Your task to perform on an android device: How much does a 3 bedroom apartment rent for in Washington DC? Image 0: 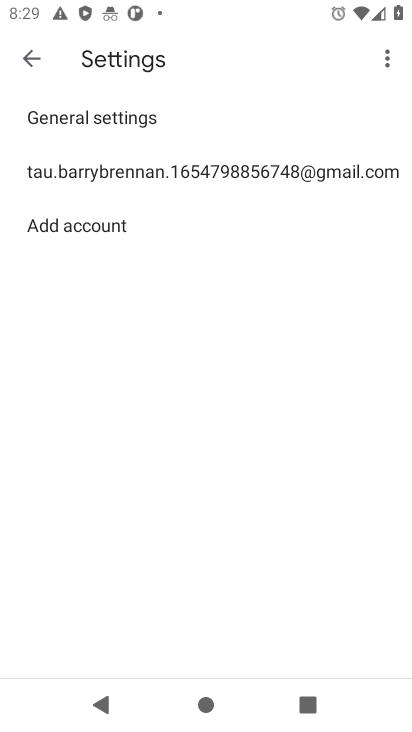
Step 0: press home button
Your task to perform on an android device: How much does a 3 bedroom apartment rent for in Washington DC? Image 1: 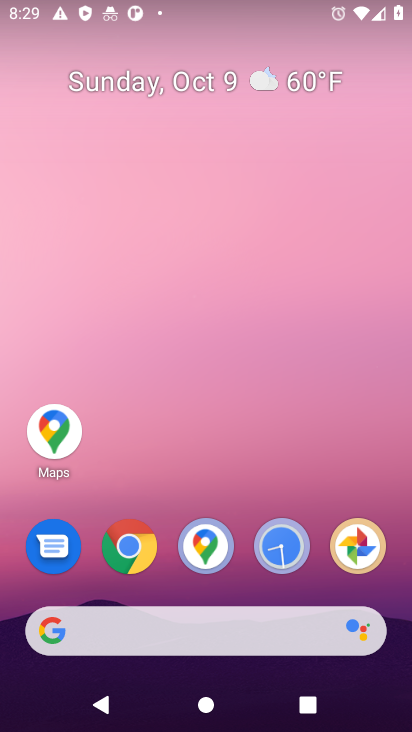
Step 1: click (112, 554)
Your task to perform on an android device: How much does a 3 bedroom apartment rent for in Washington DC? Image 2: 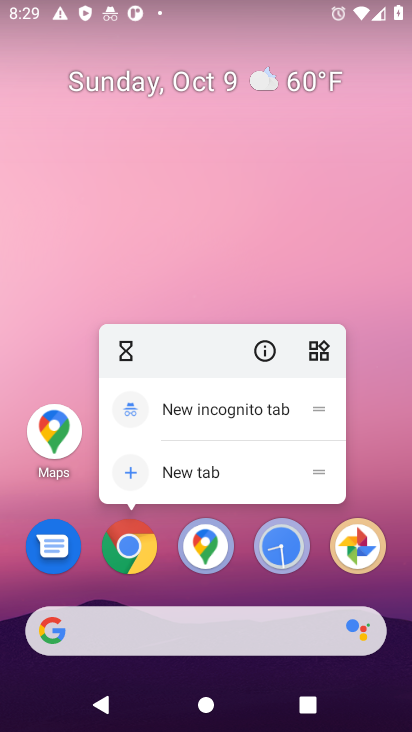
Step 2: click (138, 555)
Your task to perform on an android device: How much does a 3 bedroom apartment rent for in Washington DC? Image 3: 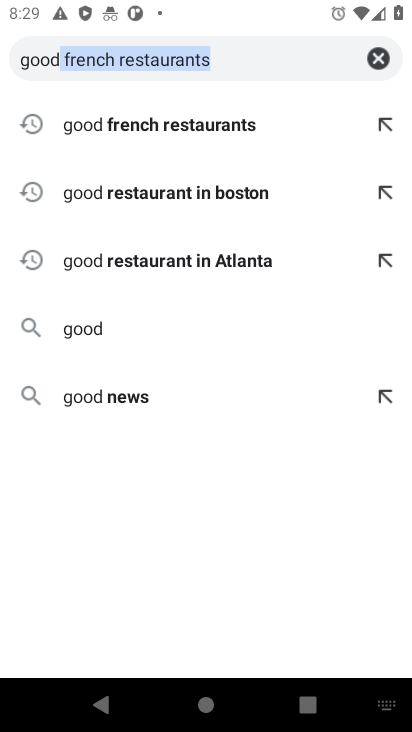
Step 3: click (379, 64)
Your task to perform on an android device: How much does a 3 bedroom apartment rent for in Washington DC? Image 4: 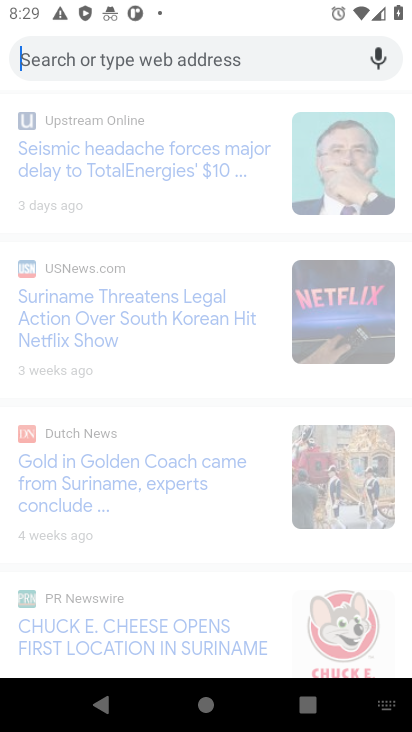
Step 4: type "cost of 3 bedroom apartment rent in w"
Your task to perform on an android device: How much does a 3 bedroom apartment rent for in Washington DC? Image 5: 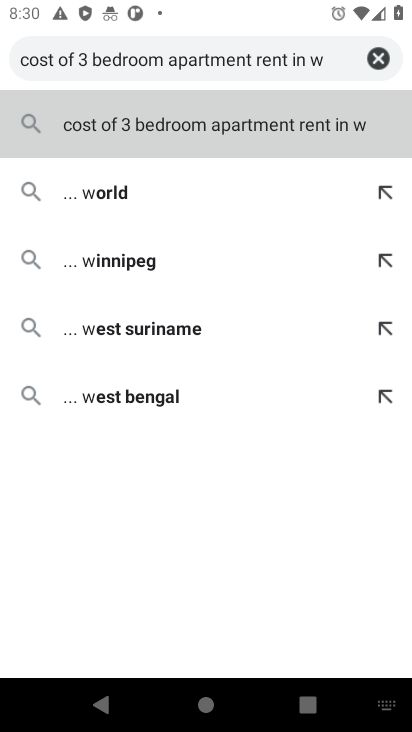
Step 5: type "ashington dc"
Your task to perform on an android device: How much does a 3 bedroom apartment rent for in Washington DC? Image 6: 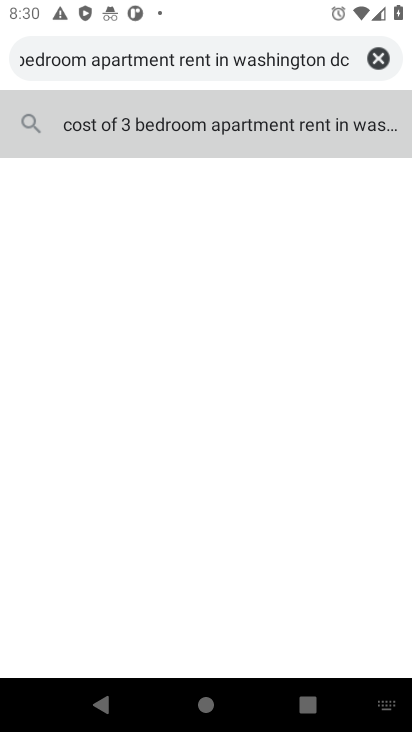
Step 6: press enter
Your task to perform on an android device: How much does a 3 bedroom apartment rent for in Washington DC? Image 7: 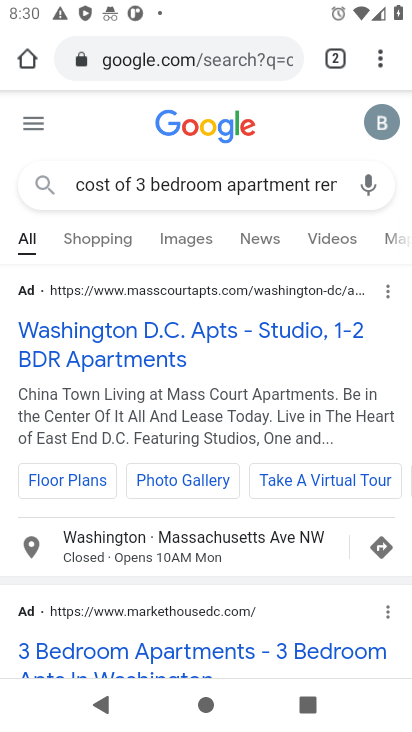
Step 7: drag from (117, 617) to (151, 331)
Your task to perform on an android device: How much does a 3 bedroom apartment rent for in Washington DC? Image 8: 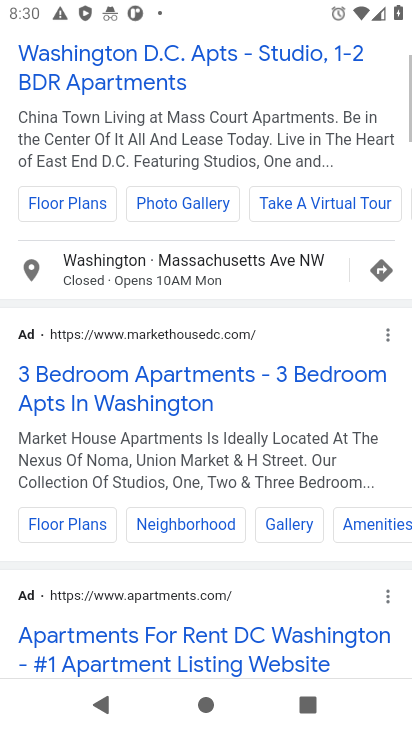
Step 8: click (151, 331)
Your task to perform on an android device: How much does a 3 bedroom apartment rent for in Washington DC? Image 9: 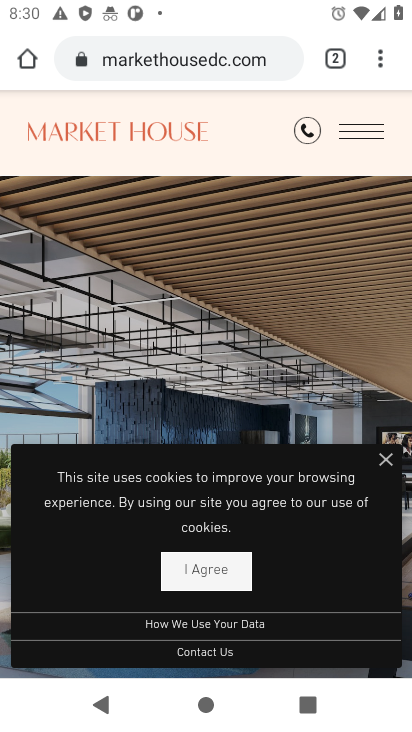
Step 9: drag from (308, 481) to (300, 341)
Your task to perform on an android device: How much does a 3 bedroom apartment rent for in Washington DC? Image 10: 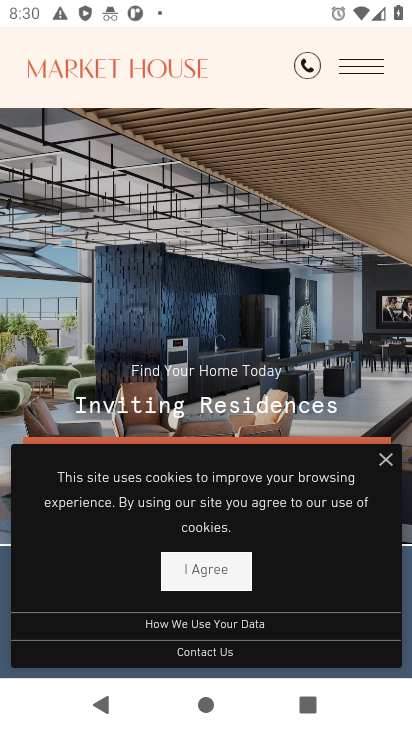
Step 10: click (219, 571)
Your task to perform on an android device: How much does a 3 bedroom apartment rent for in Washington DC? Image 11: 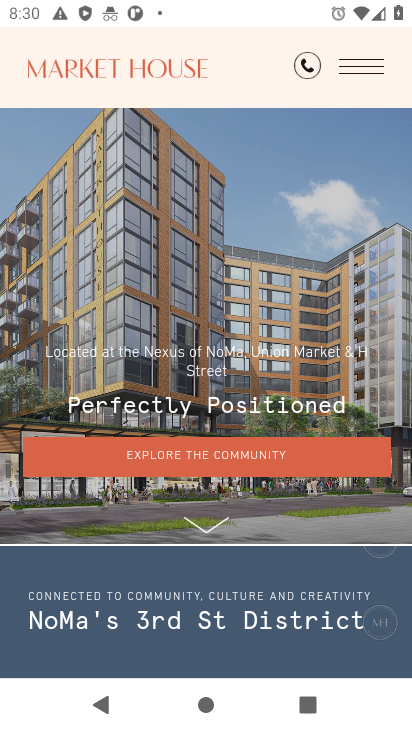
Step 11: drag from (219, 567) to (231, 297)
Your task to perform on an android device: How much does a 3 bedroom apartment rent for in Washington DC? Image 12: 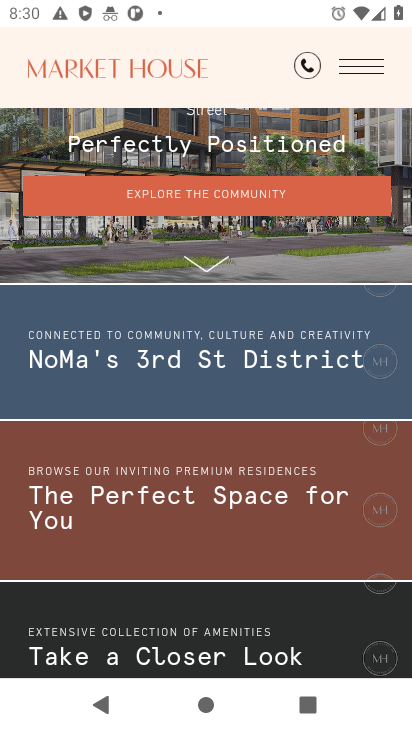
Step 12: press back button
Your task to perform on an android device: How much does a 3 bedroom apartment rent for in Washington DC? Image 13: 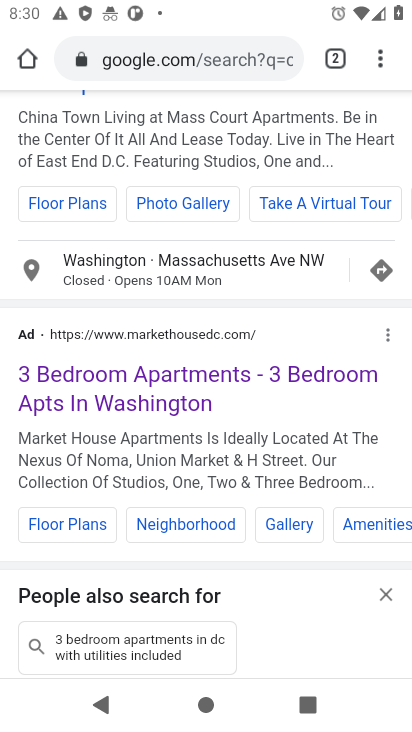
Step 13: drag from (167, 449) to (204, 314)
Your task to perform on an android device: How much does a 3 bedroom apartment rent for in Washington DC? Image 14: 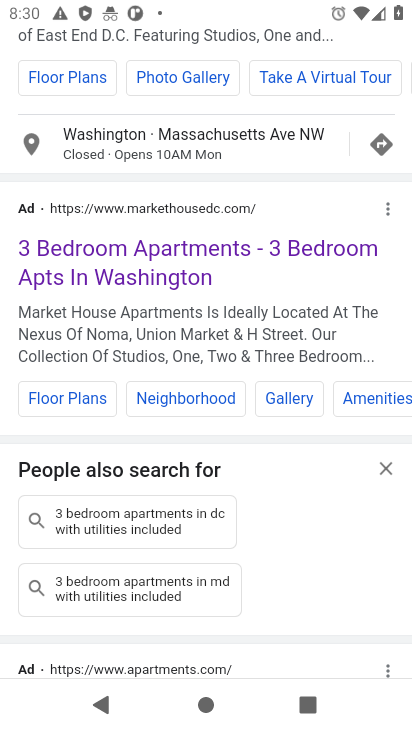
Step 14: drag from (144, 605) to (185, 369)
Your task to perform on an android device: How much does a 3 bedroom apartment rent for in Washington DC? Image 15: 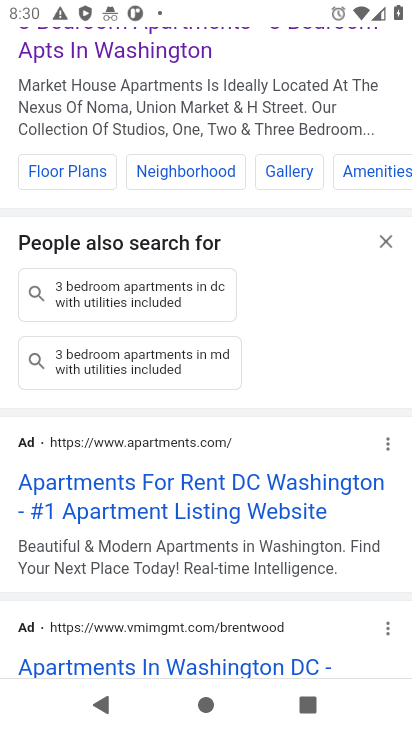
Step 15: click (161, 505)
Your task to perform on an android device: How much does a 3 bedroom apartment rent for in Washington DC? Image 16: 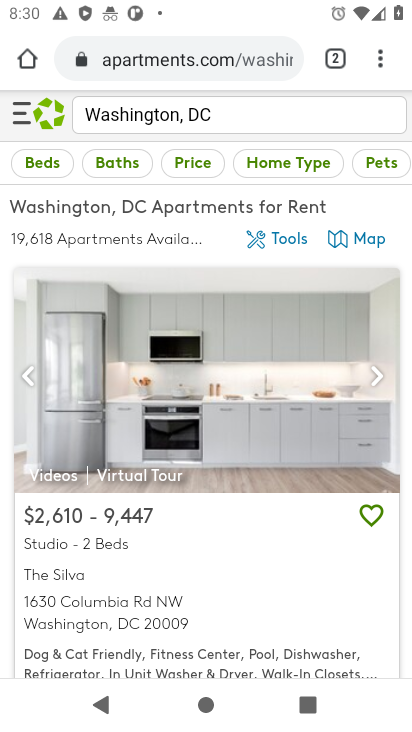
Step 16: task complete